Your task to perform on an android device: Show me popular videos on Youtube Image 0: 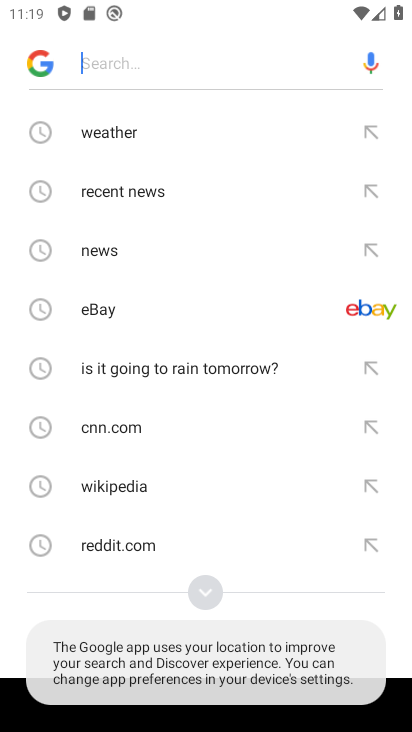
Step 0: press home button
Your task to perform on an android device: Show me popular videos on Youtube Image 1: 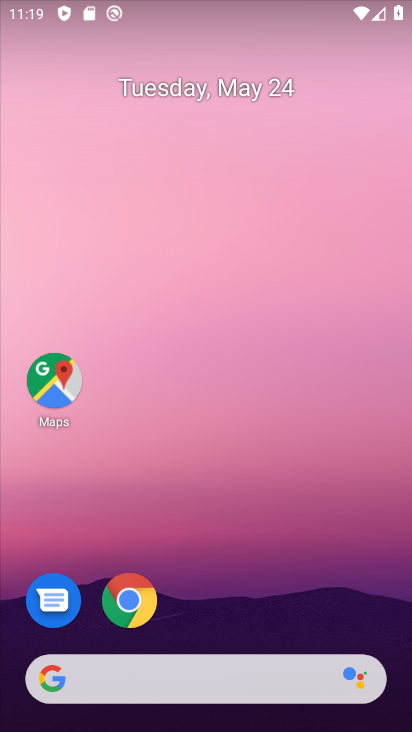
Step 1: drag from (358, 626) to (364, 176)
Your task to perform on an android device: Show me popular videos on Youtube Image 2: 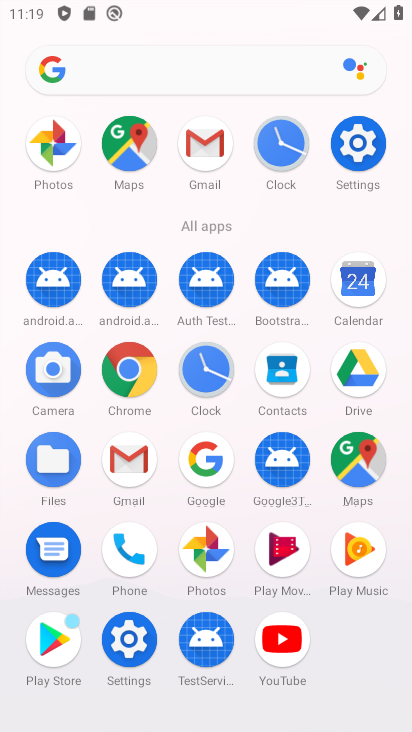
Step 2: click (283, 650)
Your task to perform on an android device: Show me popular videos on Youtube Image 3: 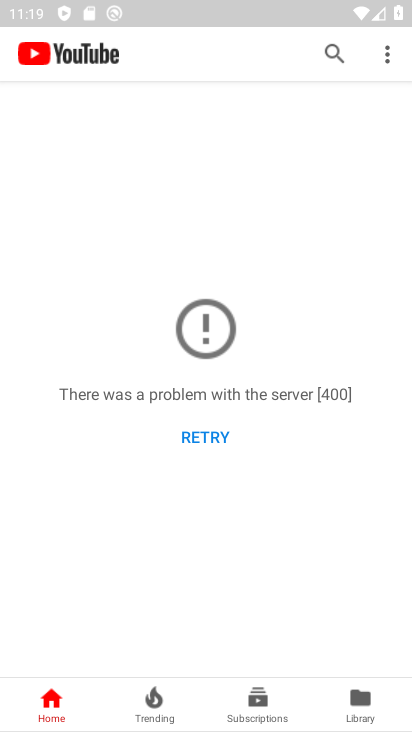
Step 3: task complete